Your task to perform on an android device: Open display settings Image 0: 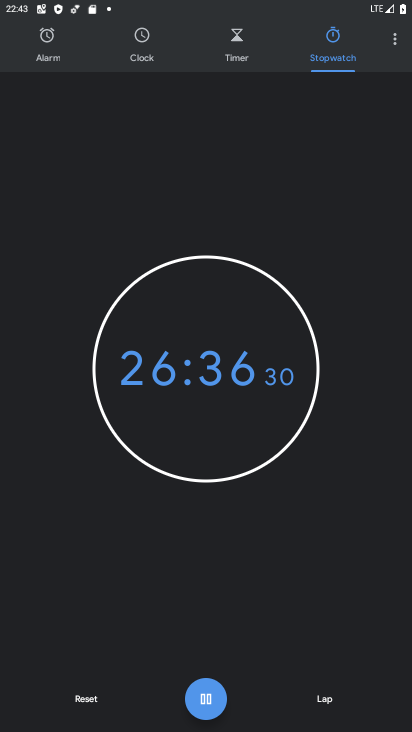
Step 0: press home button
Your task to perform on an android device: Open display settings Image 1: 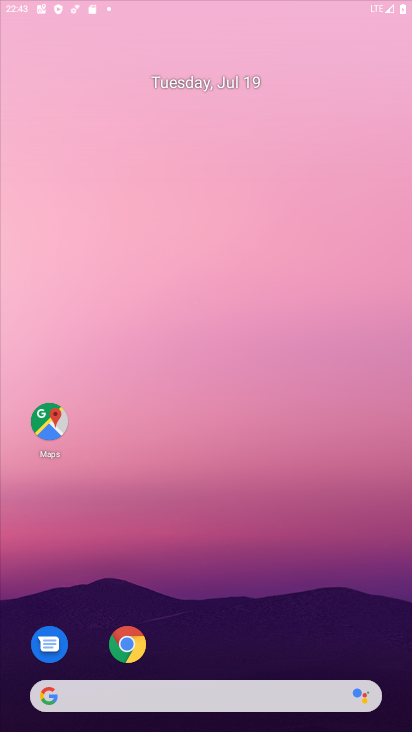
Step 1: drag from (301, 606) to (275, 0)
Your task to perform on an android device: Open display settings Image 2: 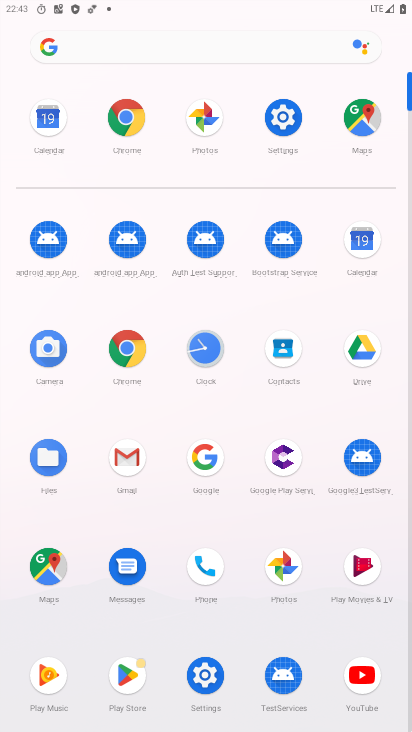
Step 2: click (294, 124)
Your task to perform on an android device: Open display settings Image 3: 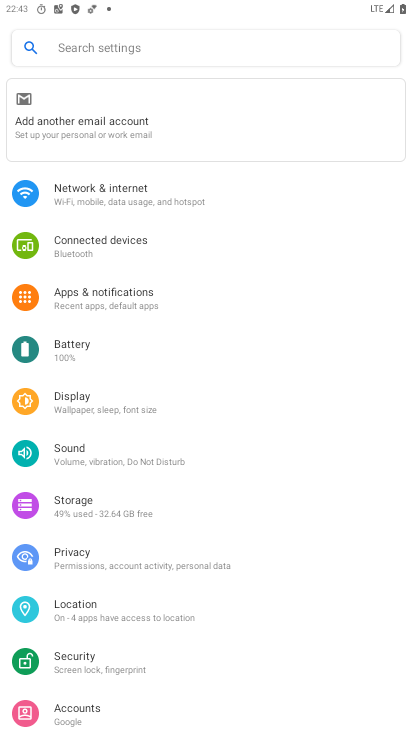
Step 3: click (83, 422)
Your task to perform on an android device: Open display settings Image 4: 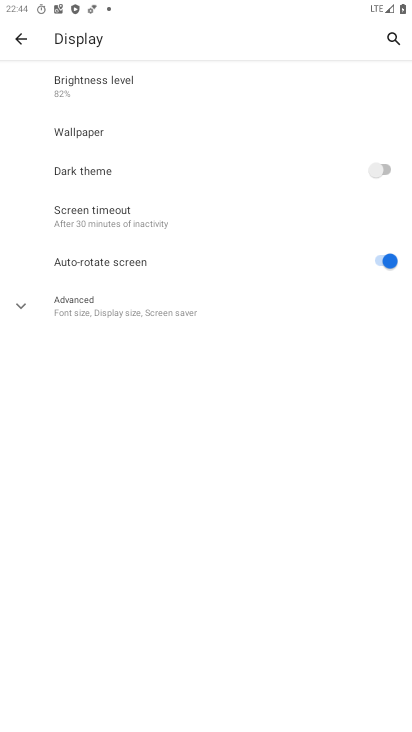
Step 4: task complete